Your task to perform on an android device: Open display settings Image 0: 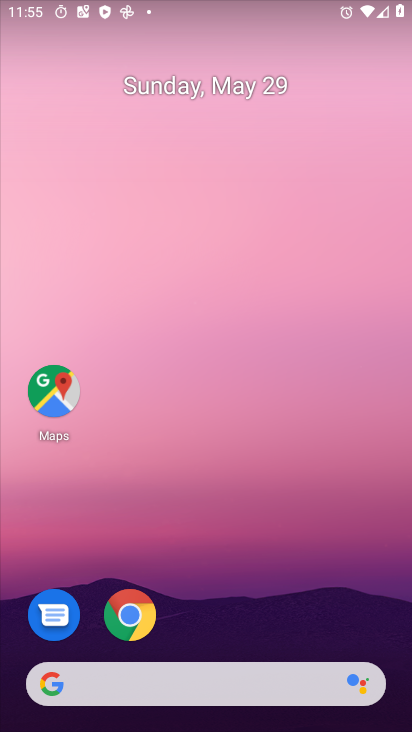
Step 0: drag from (223, 622) to (244, 85)
Your task to perform on an android device: Open display settings Image 1: 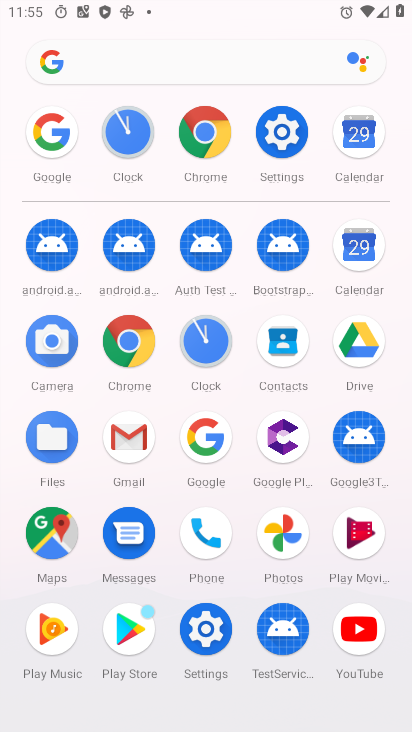
Step 1: click (282, 135)
Your task to perform on an android device: Open display settings Image 2: 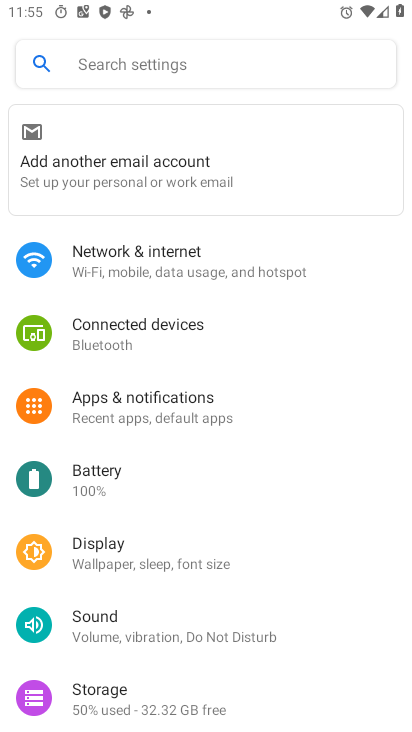
Step 2: click (133, 575)
Your task to perform on an android device: Open display settings Image 3: 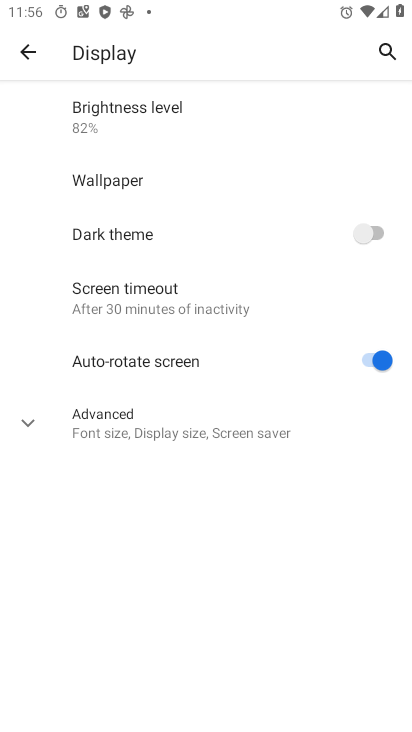
Step 3: task complete